Your task to perform on an android device: find photos in the google photos app Image 0: 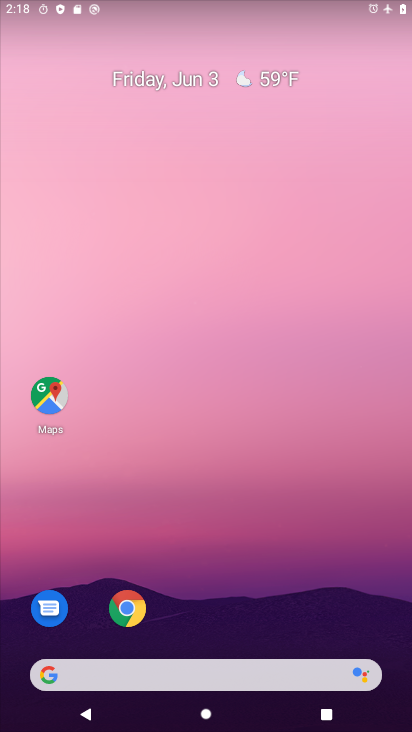
Step 0: drag from (193, 667) to (173, 305)
Your task to perform on an android device: find photos in the google photos app Image 1: 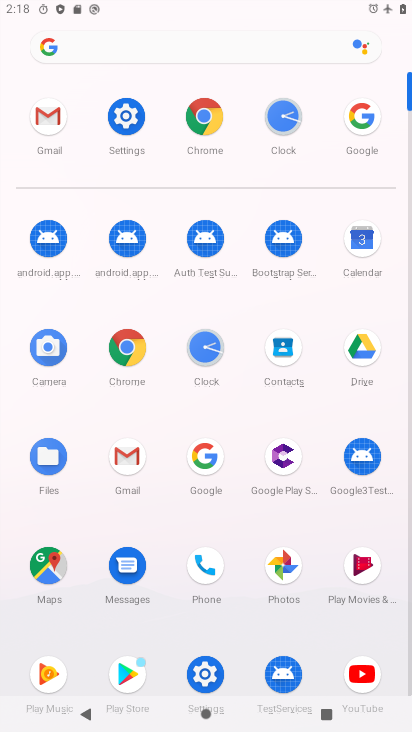
Step 1: click (293, 570)
Your task to perform on an android device: find photos in the google photos app Image 2: 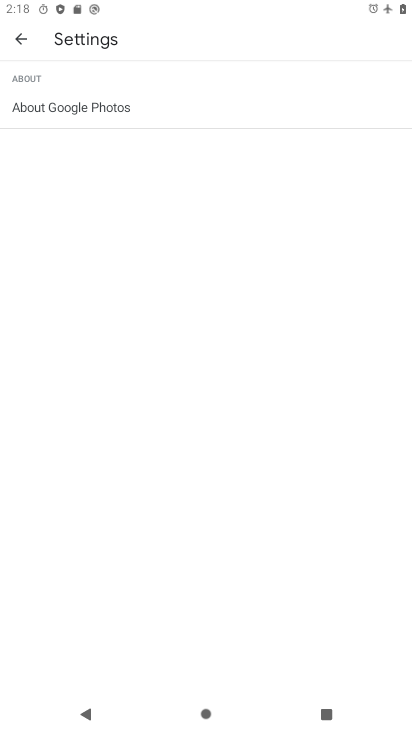
Step 2: click (12, 39)
Your task to perform on an android device: find photos in the google photos app Image 3: 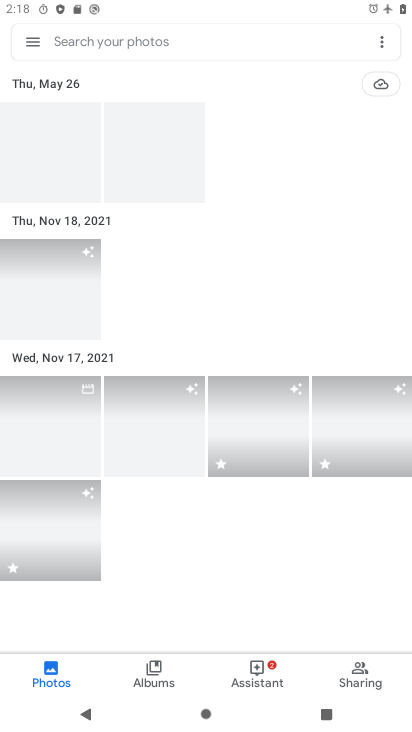
Step 3: task complete